Your task to perform on an android device: Open display settings Image 0: 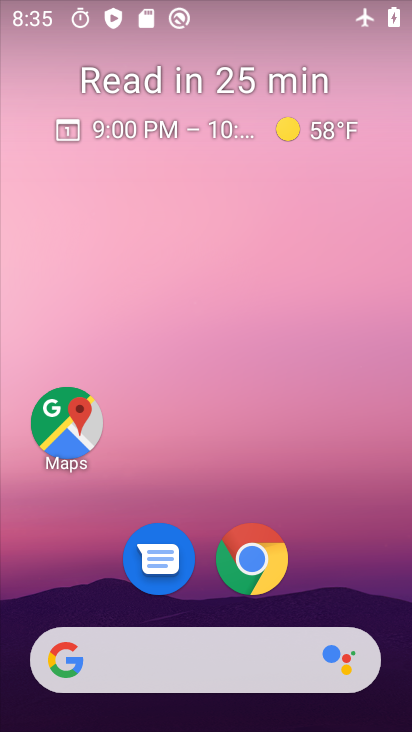
Step 0: drag from (347, 564) to (323, 219)
Your task to perform on an android device: Open display settings Image 1: 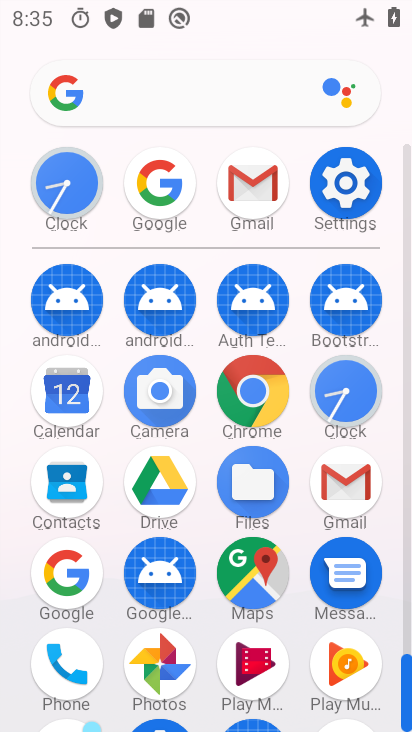
Step 1: click (342, 195)
Your task to perform on an android device: Open display settings Image 2: 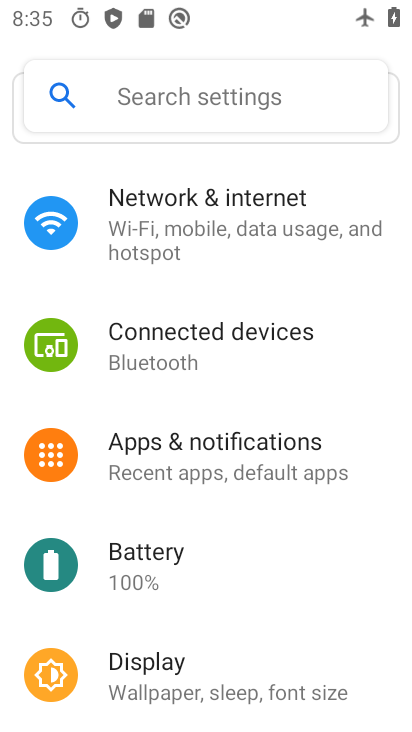
Step 2: click (150, 676)
Your task to perform on an android device: Open display settings Image 3: 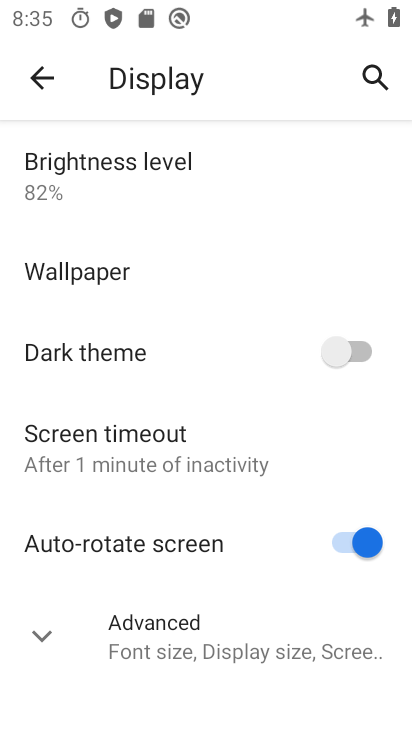
Step 3: task complete